Your task to perform on an android device: turn on data saver in the chrome app Image 0: 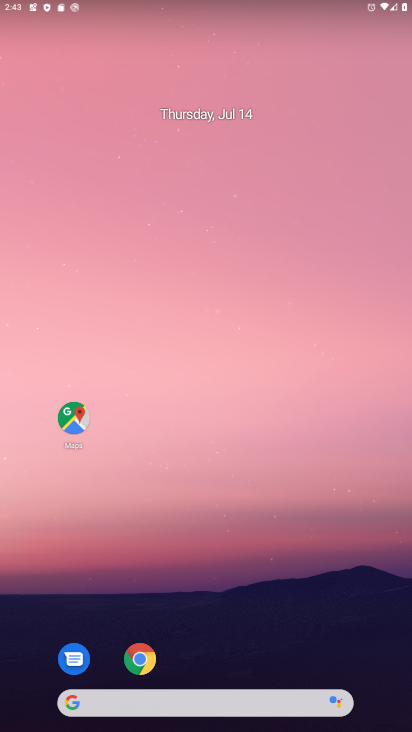
Step 0: press home button
Your task to perform on an android device: turn on data saver in the chrome app Image 1: 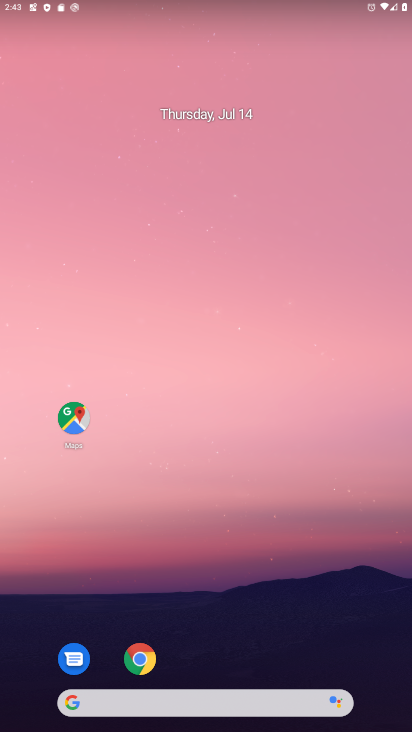
Step 1: drag from (233, 635) to (233, 109)
Your task to perform on an android device: turn on data saver in the chrome app Image 2: 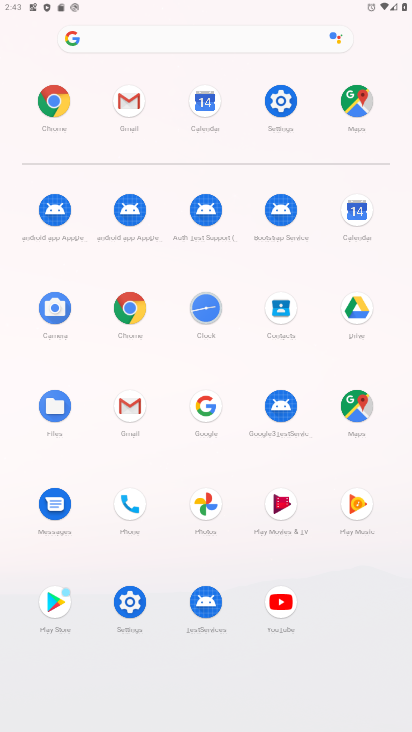
Step 2: click (48, 101)
Your task to perform on an android device: turn on data saver in the chrome app Image 3: 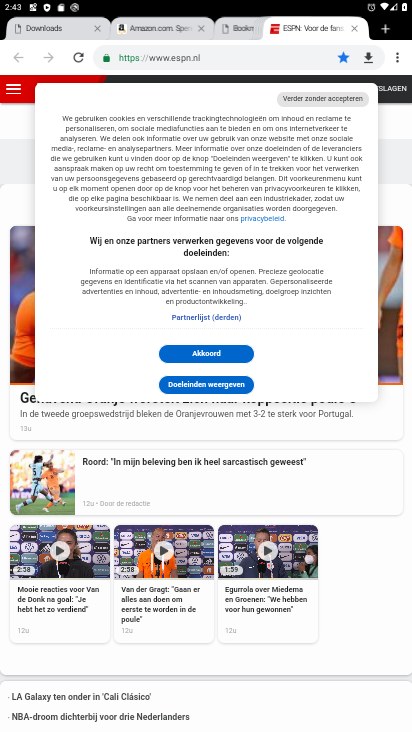
Step 3: drag from (390, 60) to (267, 387)
Your task to perform on an android device: turn on data saver in the chrome app Image 4: 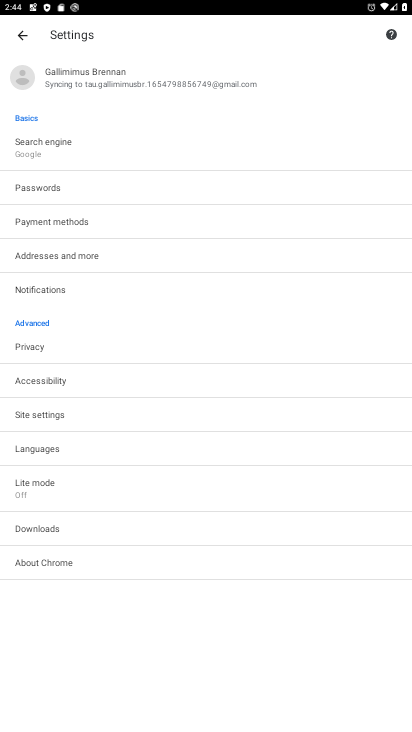
Step 4: click (41, 482)
Your task to perform on an android device: turn on data saver in the chrome app Image 5: 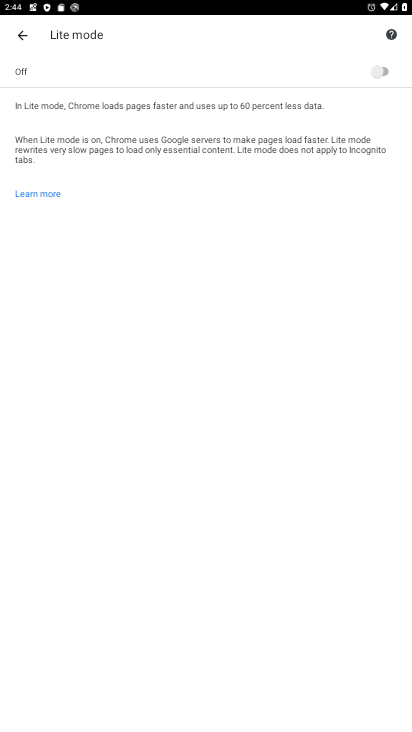
Step 5: click (382, 70)
Your task to perform on an android device: turn on data saver in the chrome app Image 6: 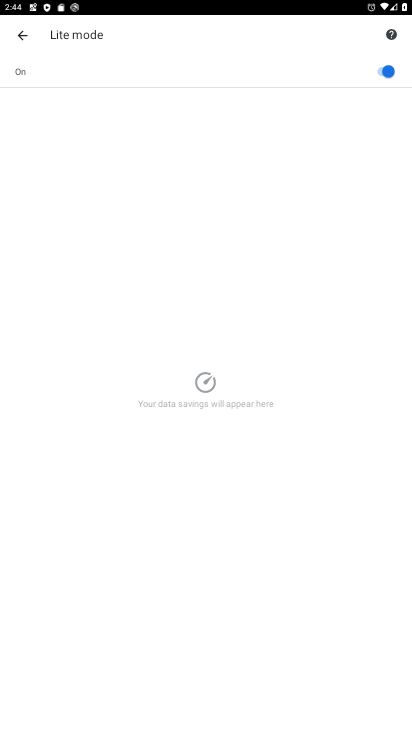
Step 6: task complete